Your task to perform on an android device: Do I have any events tomorrow? Image 0: 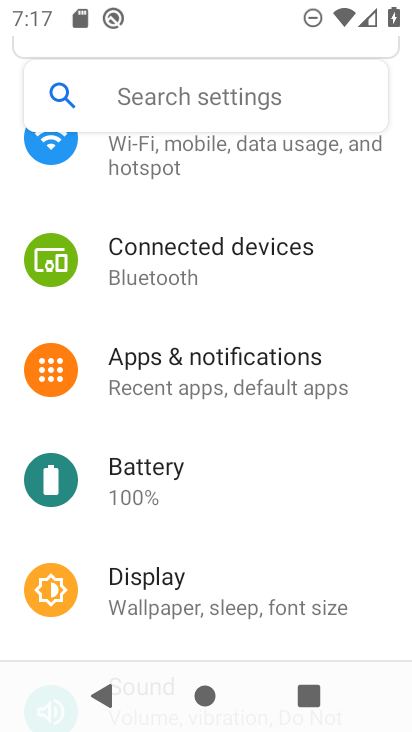
Step 0: press home button
Your task to perform on an android device: Do I have any events tomorrow? Image 1: 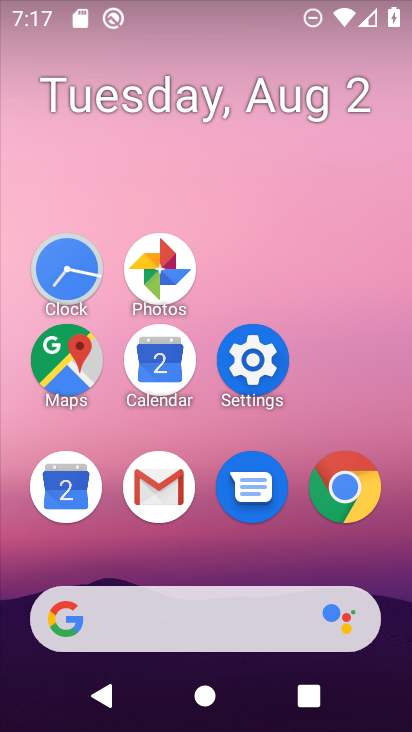
Step 1: click (164, 363)
Your task to perform on an android device: Do I have any events tomorrow? Image 2: 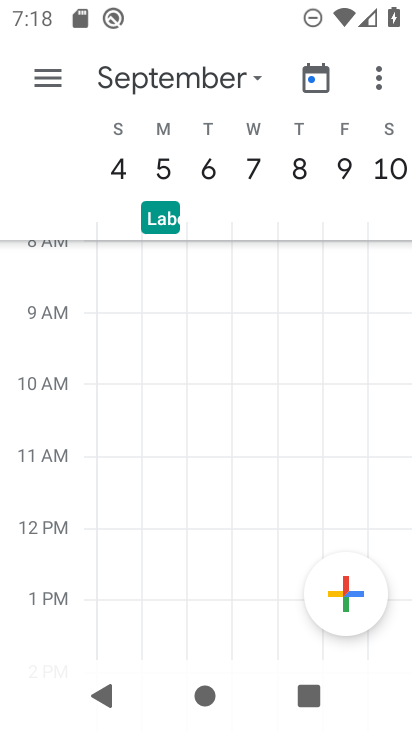
Step 2: click (54, 75)
Your task to perform on an android device: Do I have any events tomorrow? Image 3: 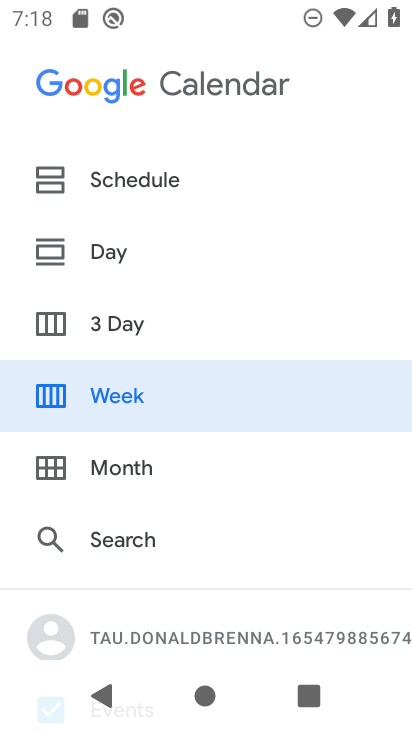
Step 3: click (121, 250)
Your task to perform on an android device: Do I have any events tomorrow? Image 4: 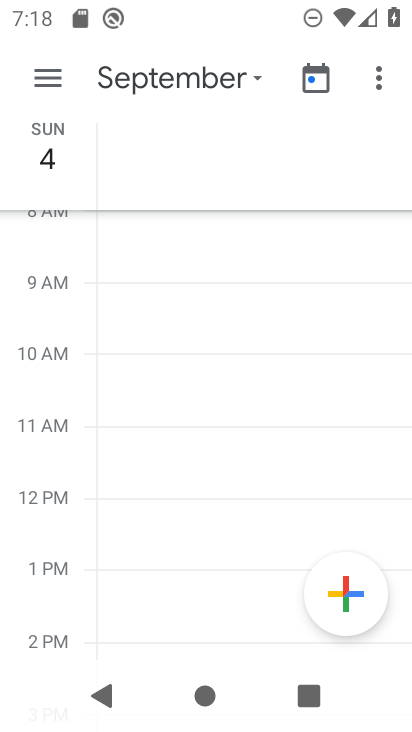
Step 4: click (240, 83)
Your task to perform on an android device: Do I have any events tomorrow? Image 5: 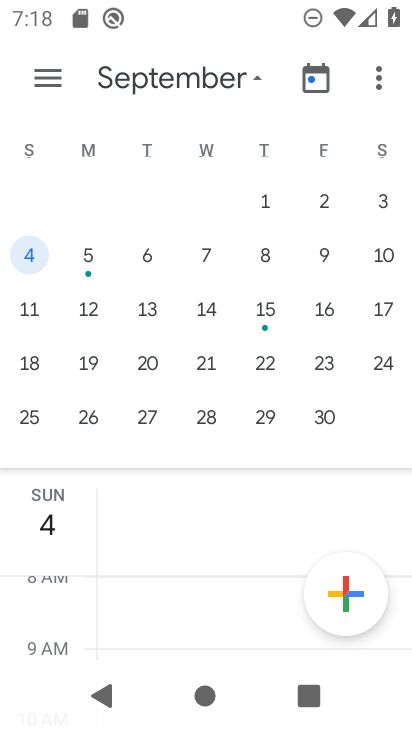
Step 5: drag from (43, 275) to (400, 279)
Your task to perform on an android device: Do I have any events tomorrow? Image 6: 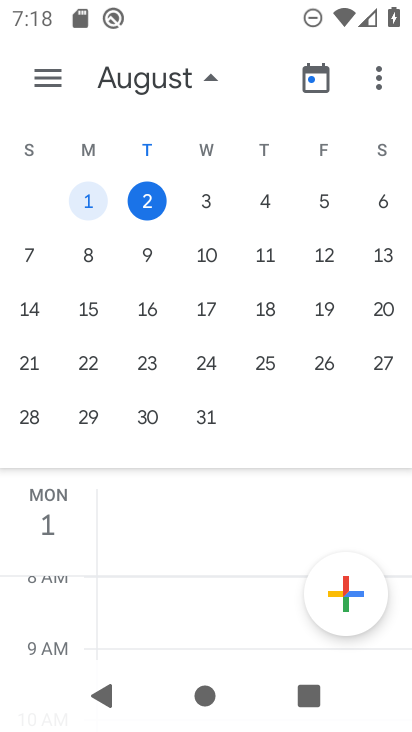
Step 6: click (202, 205)
Your task to perform on an android device: Do I have any events tomorrow? Image 7: 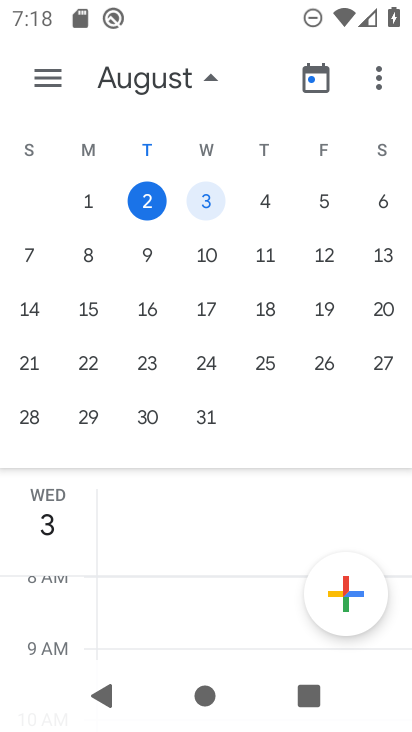
Step 7: task complete